Your task to perform on an android device: Open location settings Image 0: 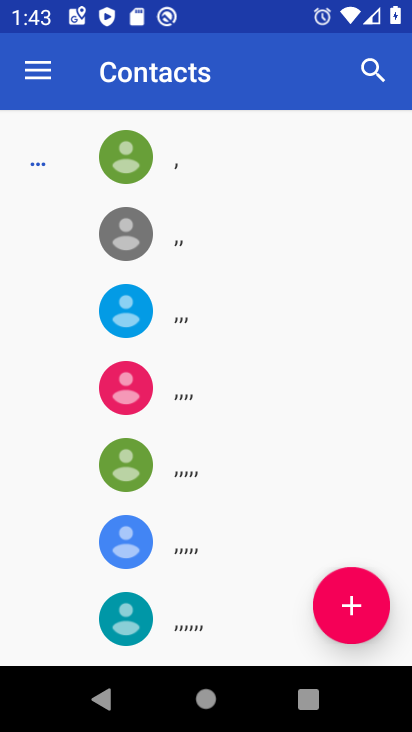
Step 0: press home button
Your task to perform on an android device: Open location settings Image 1: 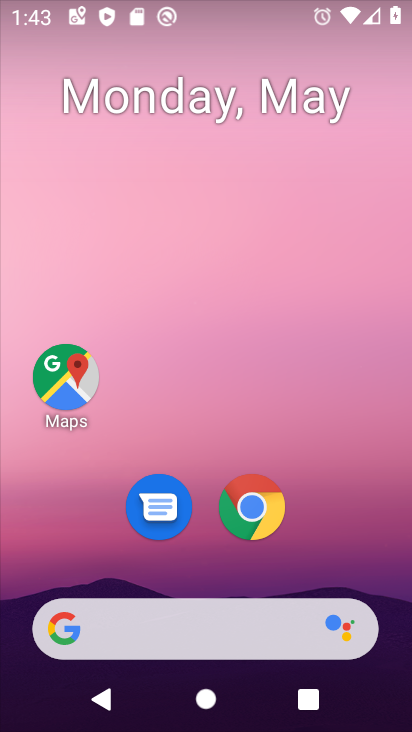
Step 1: drag from (236, 722) to (236, 57)
Your task to perform on an android device: Open location settings Image 2: 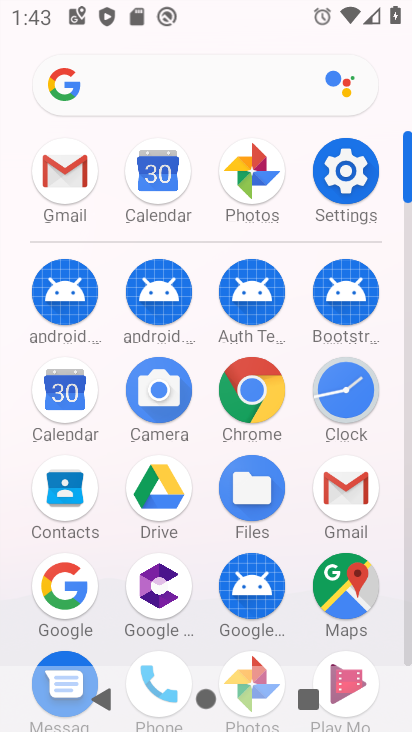
Step 2: click (340, 173)
Your task to perform on an android device: Open location settings Image 3: 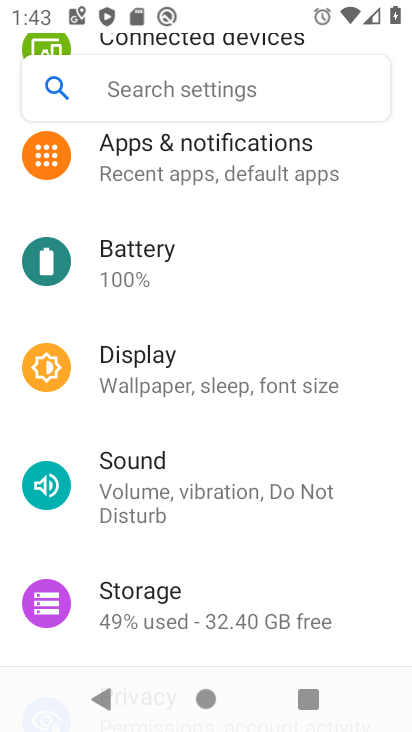
Step 3: drag from (165, 180) to (165, 562)
Your task to perform on an android device: Open location settings Image 4: 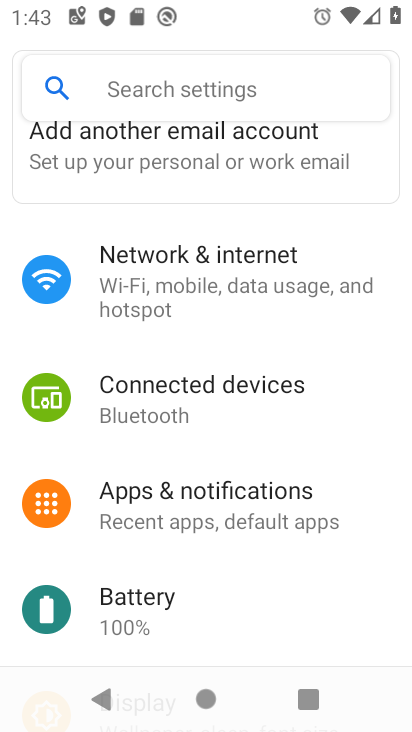
Step 4: drag from (159, 641) to (143, 254)
Your task to perform on an android device: Open location settings Image 5: 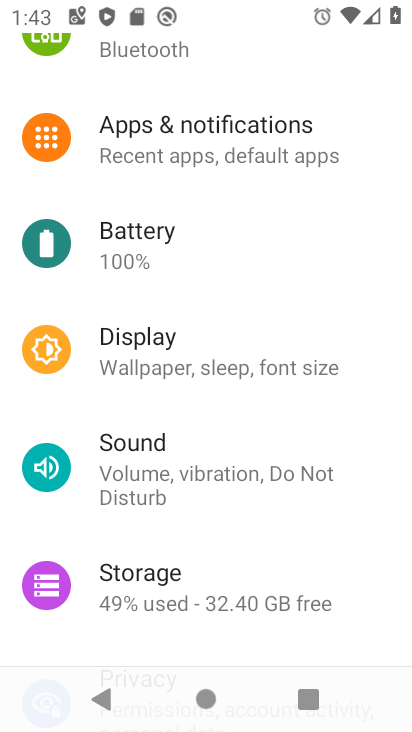
Step 5: drag from (139, 618) to (144, 262)
Your task to perform on an android device: Open location settings Image 6: 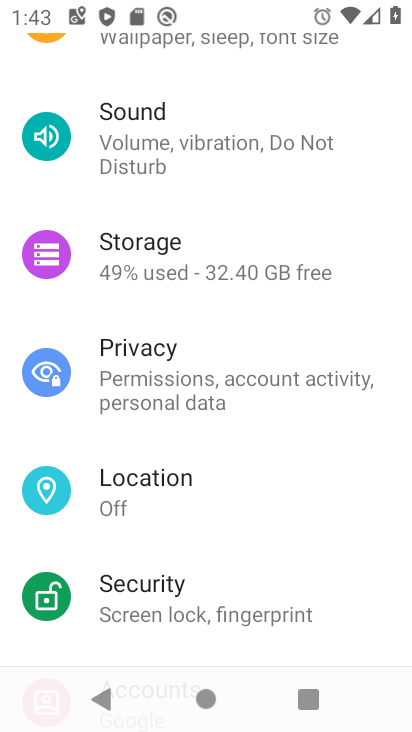
Step 6: click (149, 485)
Your task to perform on an android device: Open location settings Image 7: 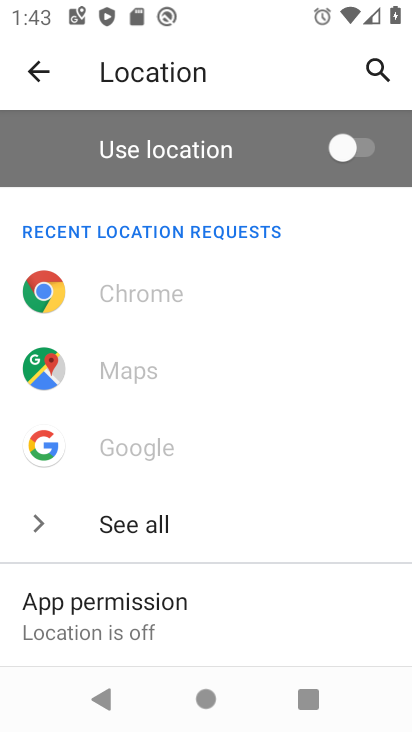
Step 7: task complete